Your task to perform on an android device: turn on airplane mode Image 0: 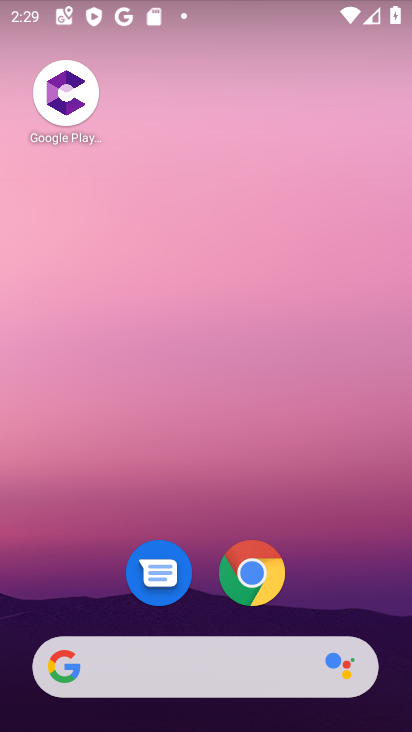
Step 0: drag from (335, 579) to (302, 119)
Your task to perform on an android device: turn on airplane mode Image 1: 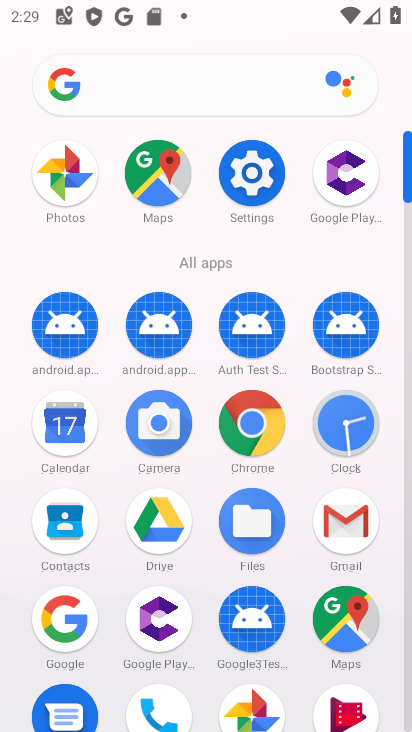
Step 1: click (259, 187)
Your task to perform on an android device: turn on airplane mode Image 2: 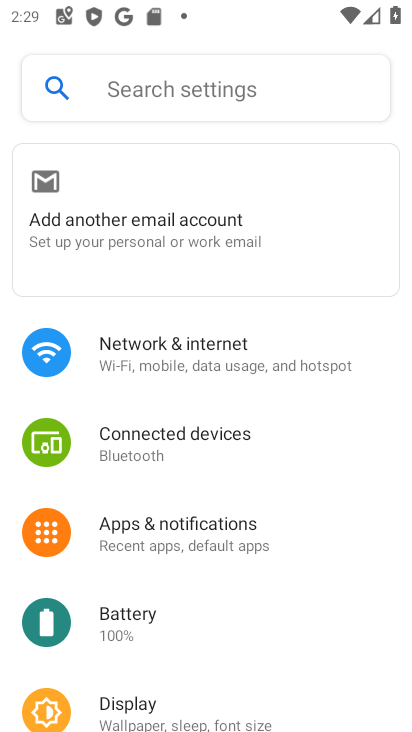
Step 2: drag from (249, 608) to (252, 448)
Your task to perform on an android device: turn on airplane mode Image 3: 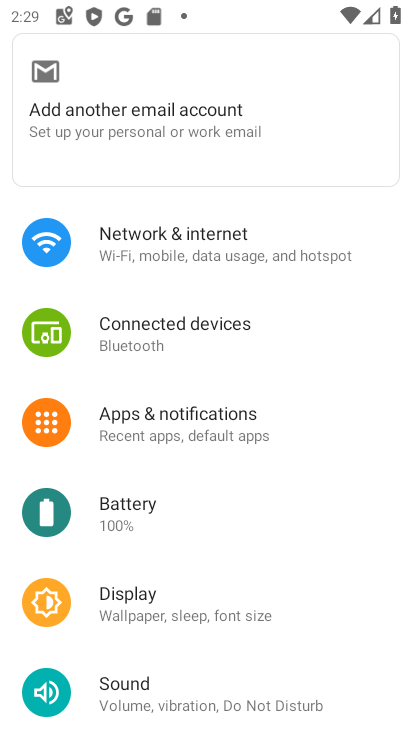
Step 3: click (203, 250)
Your task to perform on an android device: turn on airplane mode Image 4: 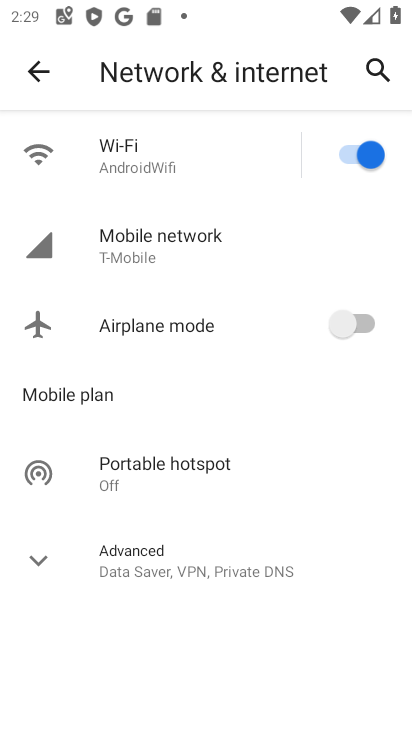
Step 4: click (367, 325)
Your task to perform on an android device: turn on airplane mode Image 5: 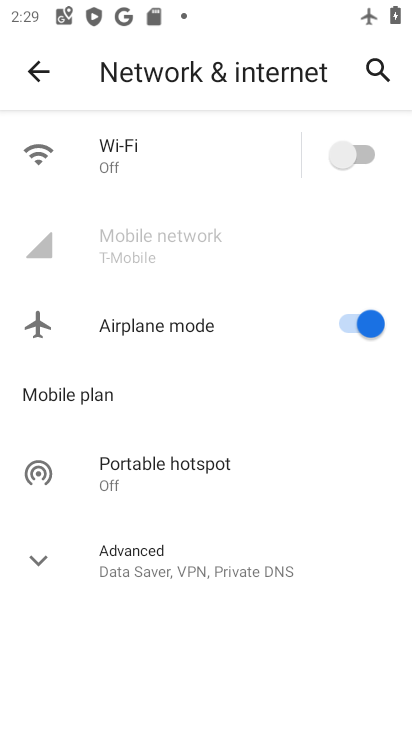
Step 5: task complete